Your task to perform on an android device: Do I have any events this weekend? Image 0: 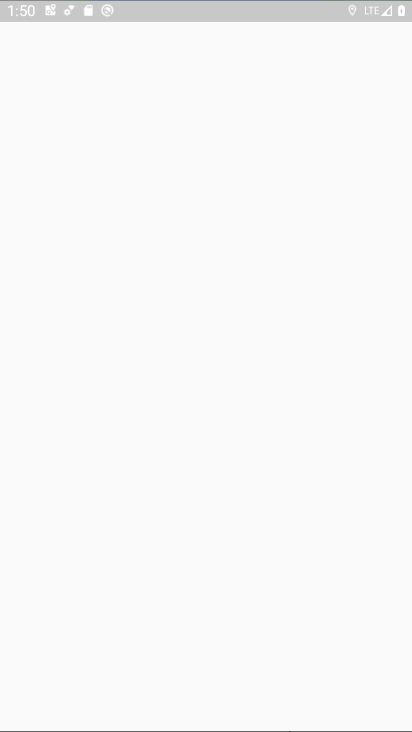
Step 0: press home button
Your task to perform on an android device: Do I have any events this weekend? Image 1: 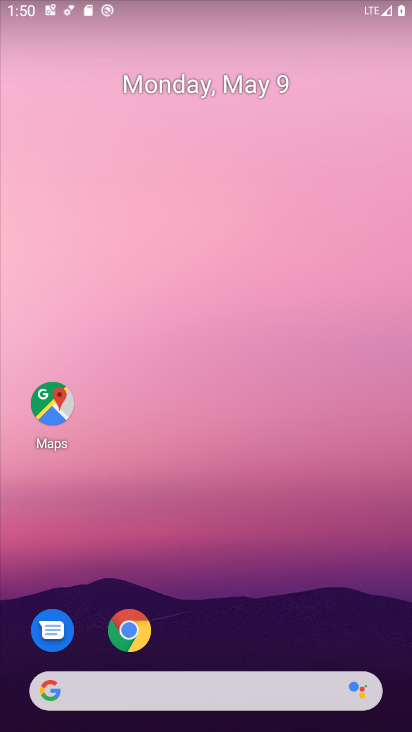
Step 1: drag from (165, 624) to (251, 77)
Your task to perform on an android device: Do I have any events this weekend? Image 2: 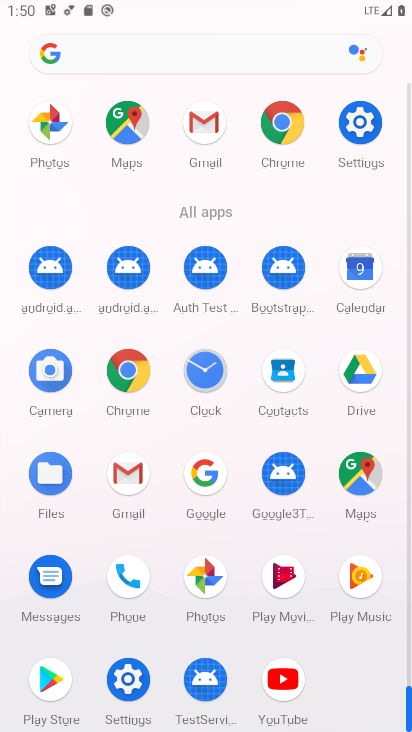
Step 2: click (366, 279)
Your task to perform on an android device: Do I have any events this weekend? Image 3: 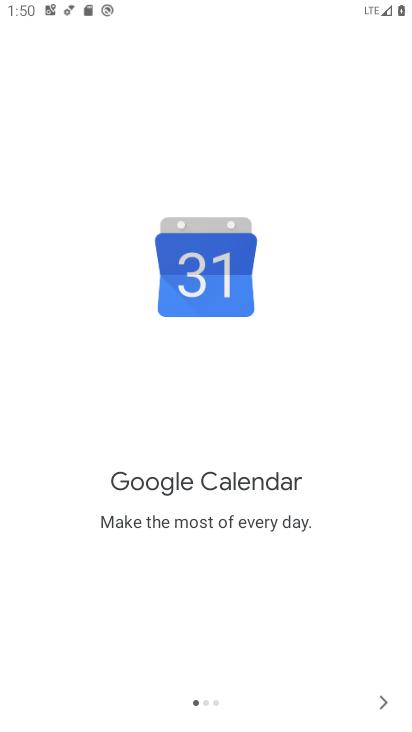
Step 3: click (373, 706)
Your task to perform on an android device: Do I have any events this weekend? Image 4: 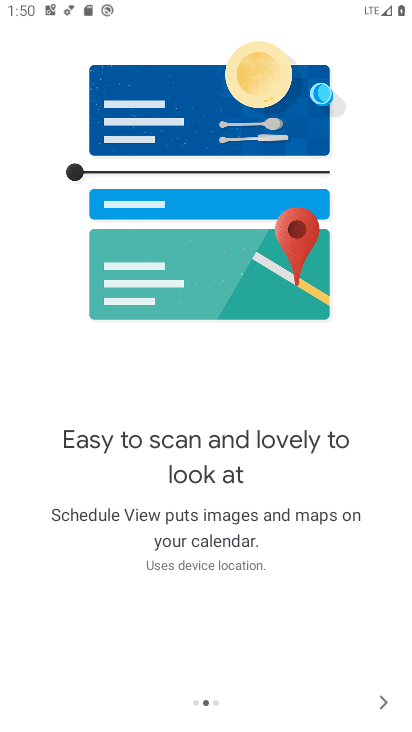
Step 4: click (374, 709)
Your task to perform on an android device: Do I have any events this weekend? Image 5: 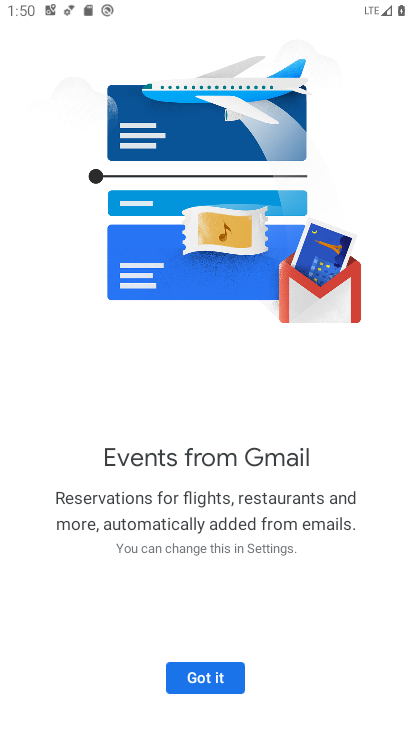
Step 5: click (197, 682)
Your task to perform on an android device: Do I have any events this weekend? Image 6: 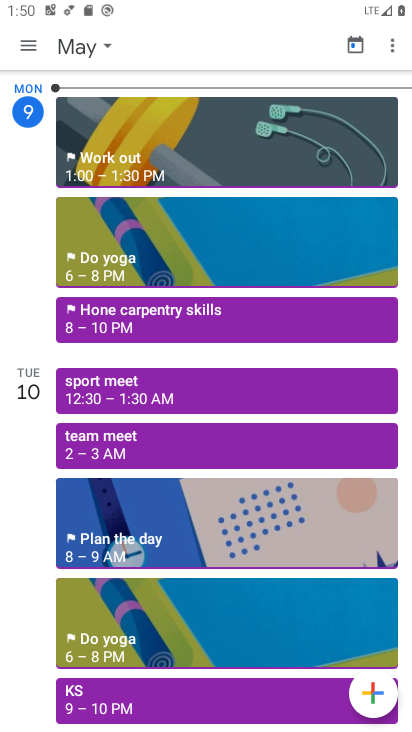
Step 6: click (29, 41)
Your task to perform on an android device: Do I have any events this weekend? Image 7: 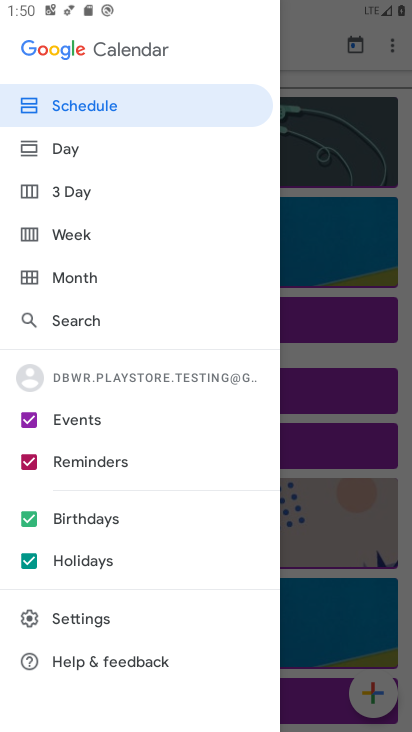
Step 7: click (99, 455)
Your task to perform on an android device: Do I have any events this weekend? Image 8: 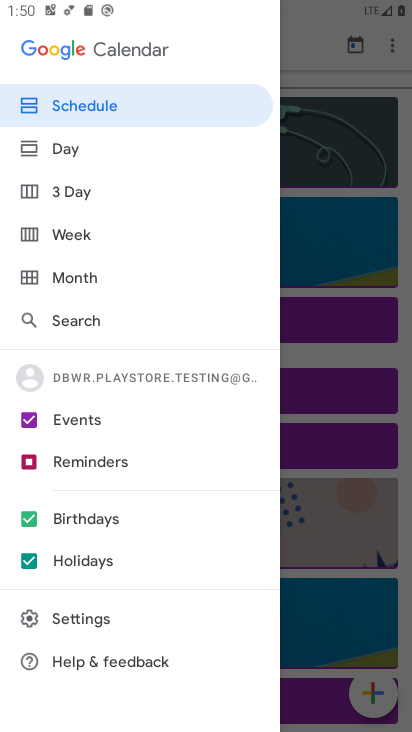
Step 8: click (104, 523)
Your task to perform on an android device: Do I have any events this weekend? Image 9: 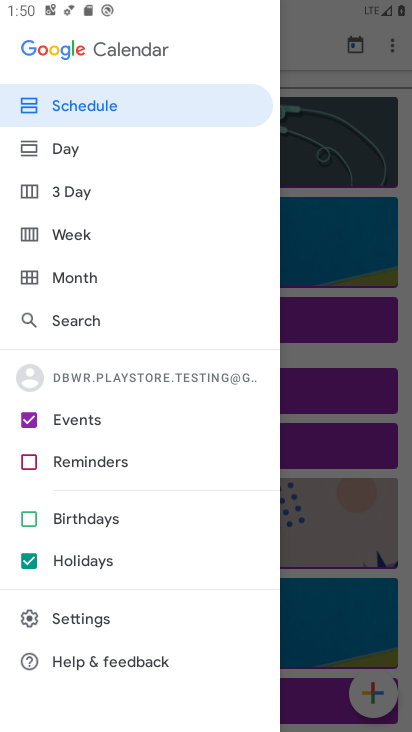
Step 9: click (96, 570)
Your task to perform on an android device: Do I have any events this weekend? Image 10: 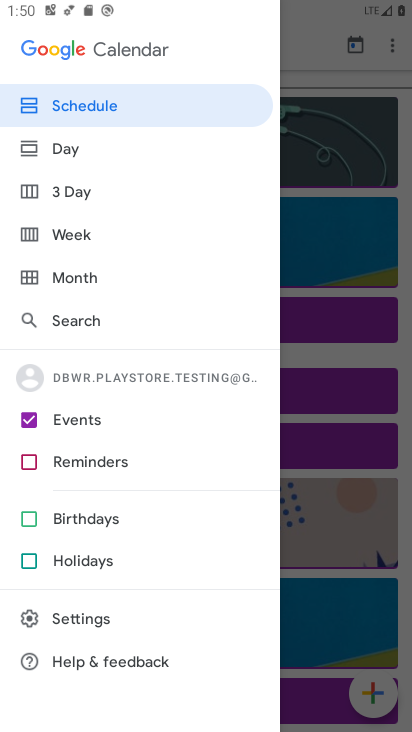
Step 10: click (91, 236)
Your task to perform on an android device: Do I have any events this weekend? Image 11: 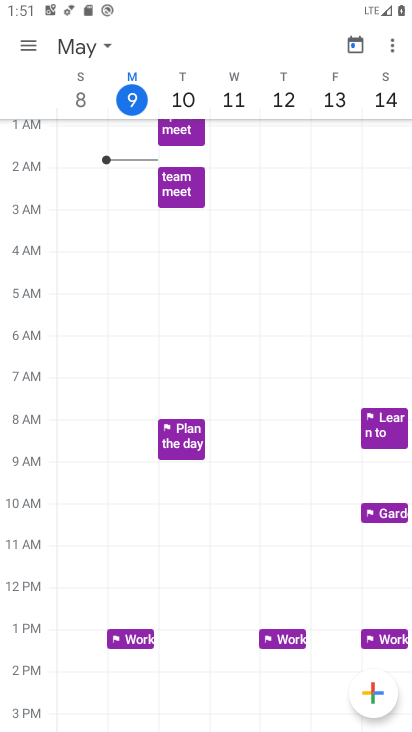
Step 11: click (237, 406)
Your task to perform on an android device: Do I have any events this weekend? Image 12: 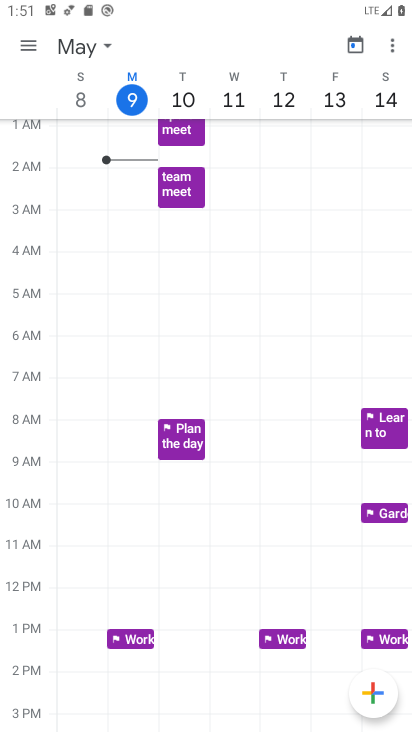
Step 12: task complete